Your task to perform on an android device: Add logitech g pro to the cart on target.com Image 0: 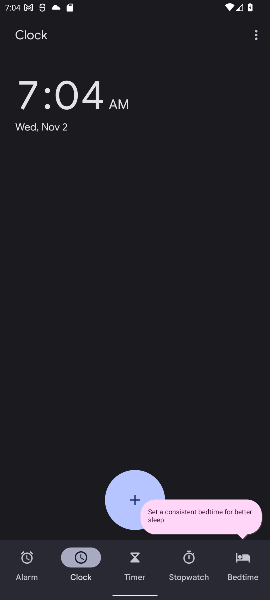
Step 0: press home button
Your task to perform on an android device: Add logitech g pro to the cart on target.com Image 1: 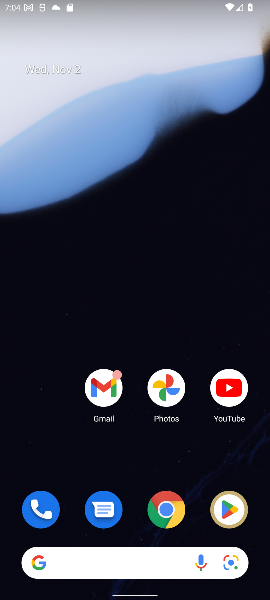
Step 1: click (109, 562)
Your task to perform on an android device: Add logitech g pro to the cart on target.com Image 2: 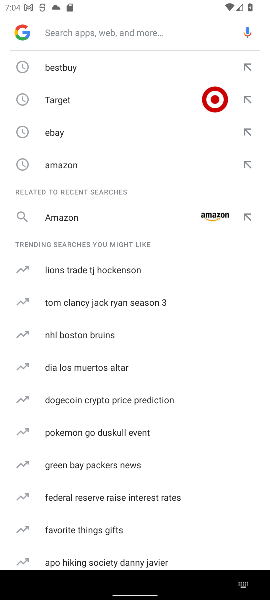
Step 2: click (67, 100)
Your task to perform on an android device: Add logitech g pro to the cart on target.com Image 3: 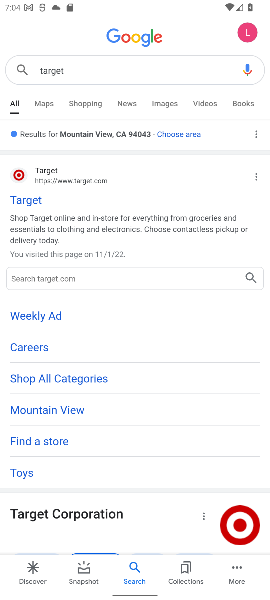
Step 3: click (22, 195)
Your task to perform on an android device: Add logitech g pro to the cart on target.com Image 4: 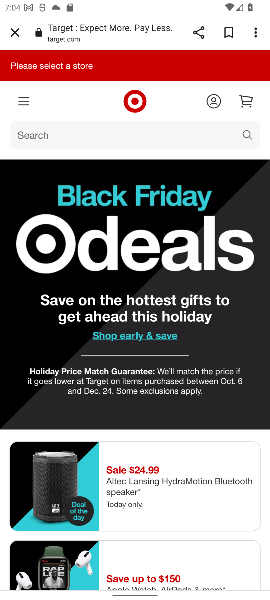
Step 4: click (94, 130)
Your task to perform on an android device: Add logitech g pro to the cart on target.com Image 5: 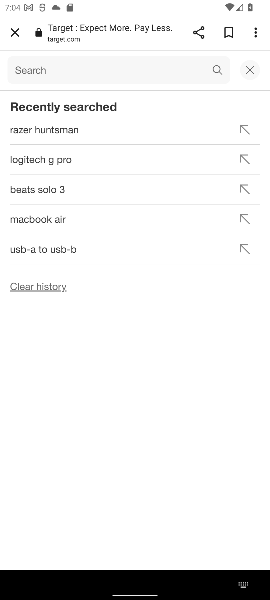
Step 5: click (49, 163)
Your task to perform on an android device: Add logitech g pro to the cart on target.com Image 6: 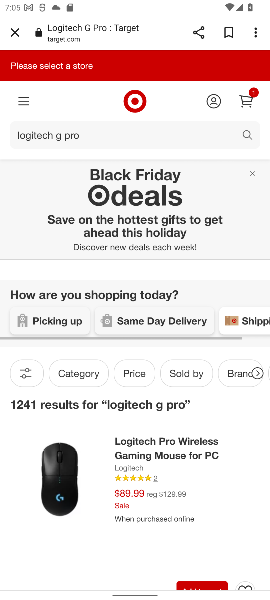
Step 6: drag from (249, 483) to (205, 287)
Your task to perform on an android device: Add logitech g pro to the cart on target.com Image 7: 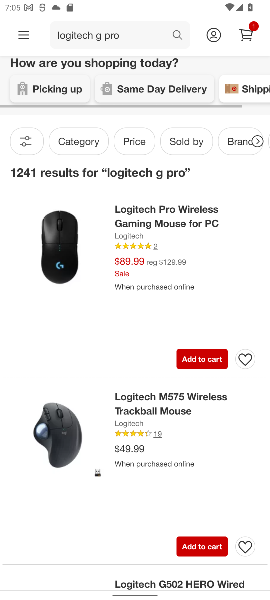
Step 7: click (195, 357)
Your task to perform on an android device: Add logitech g pro to the cart on target.com Image 8: 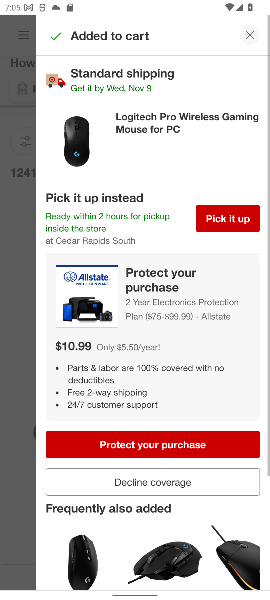
Step 8: task complete